Your task to perform on an android device: check battery use Image 0: 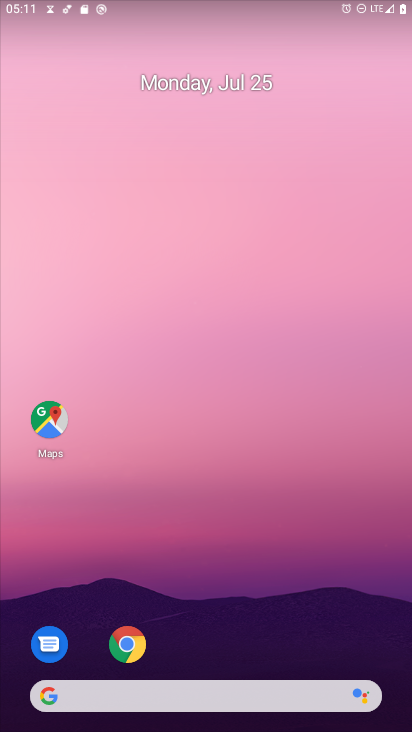
Step 0: press home button
Your task to perform on an android device: check battery use Image 1: 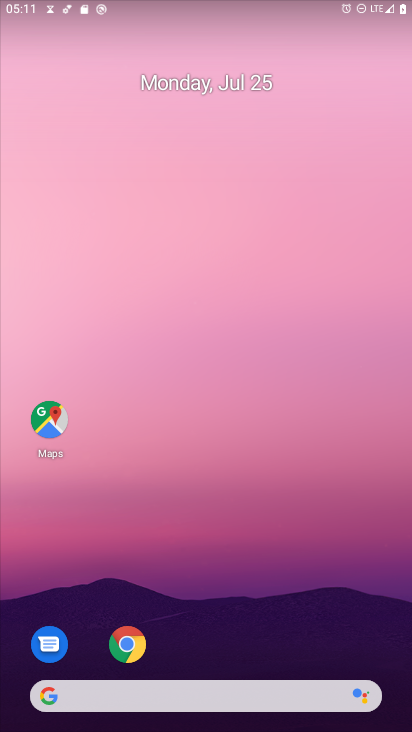
Step 1: drag from (243, 622) to (179, 113)
Your task to perform on an android device: check battery use Image 2: 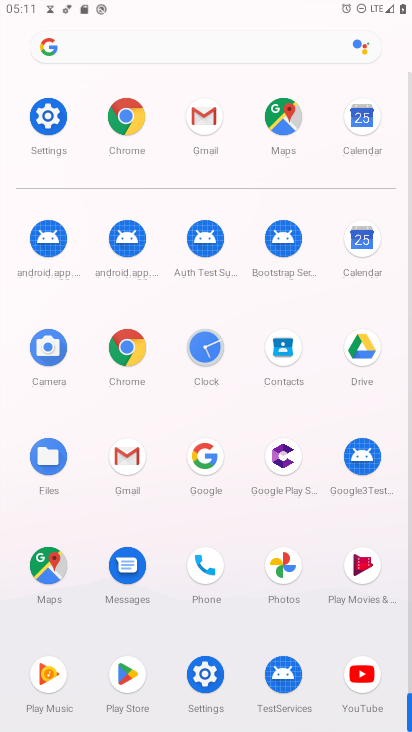
Step 2: click (49, 109)
Your task to perform on an android device: check battery use Image 3: 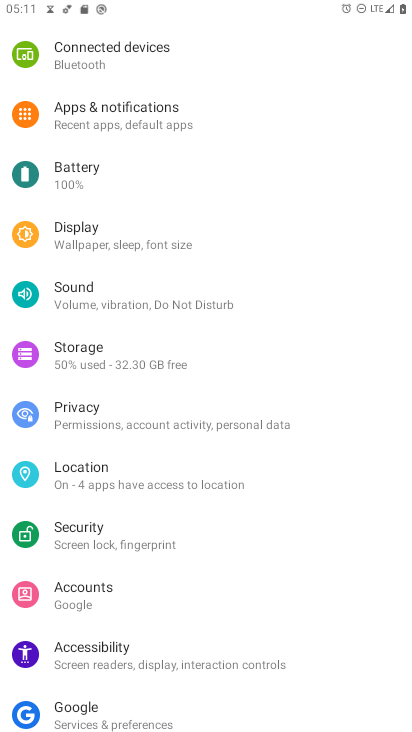
Step 3: click (66, 167)
Your task to perform on an android device: check battery use Image 4: 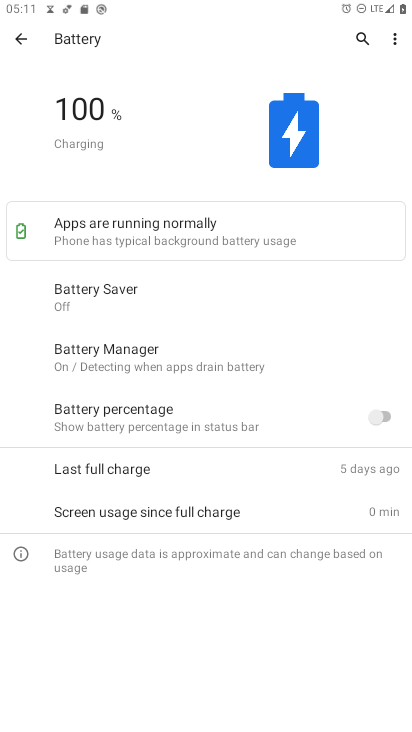
Step 4: task complete